Your task to perform on an android device: Open the calendar app, open the side menu, and click the "Day" option Image 0: 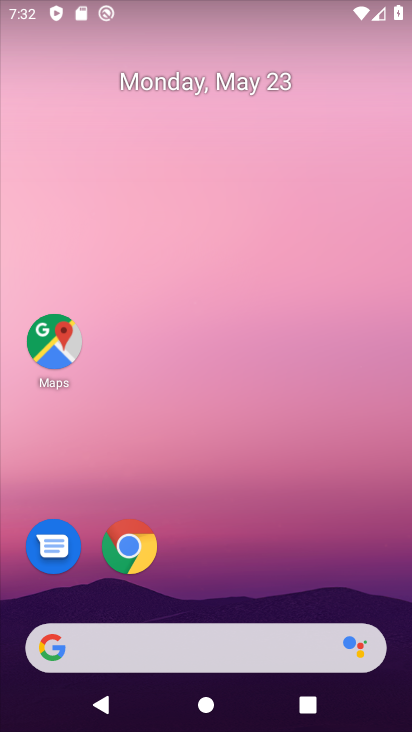
Step 0: drag from (392, 589) to (379, 215)
Your task to perform on an android device: Open the calendar app, open the side menu, and click the "Day" option Image 1: 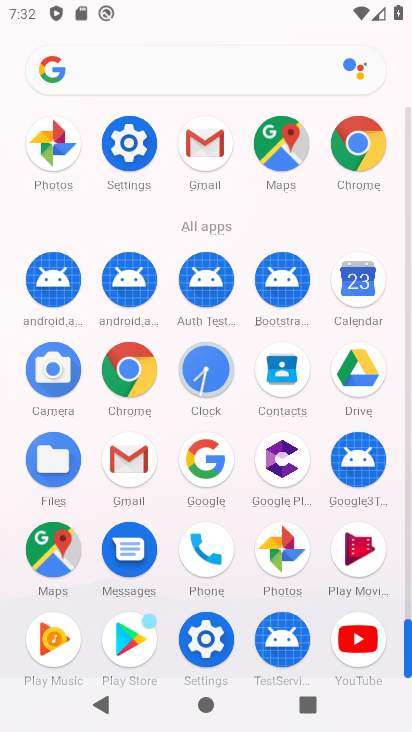
Step 1: click (360, 303)
Your task to perform on an android device: Open the calendar app, open the side menu, and click the "Day" option Image 2: 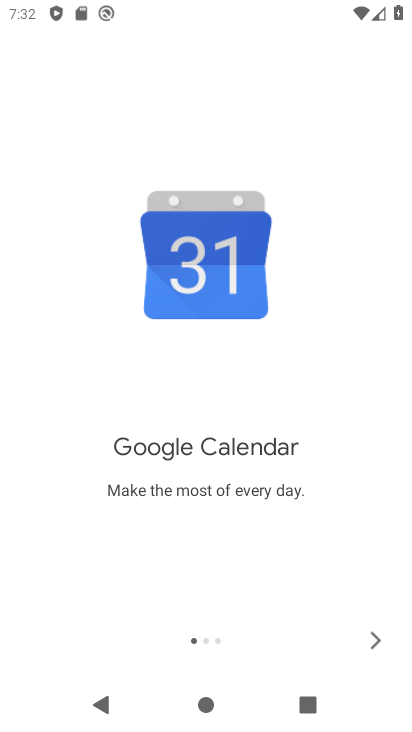
Step 2: click (379, 649)
Your task to perform on an android device: Open the calendar app, open the side menu, and click the "Day" option Image 3: 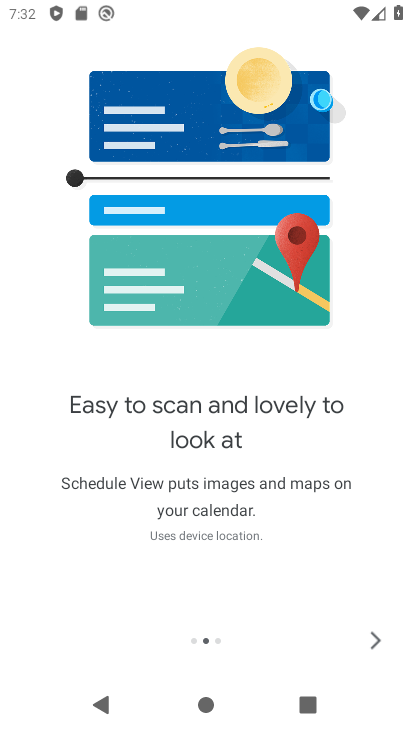
Step 3: click (379, 649)
Your task to perform on an android device: Open the calendar app, open the side menu, and click the "Day" option Image 4: 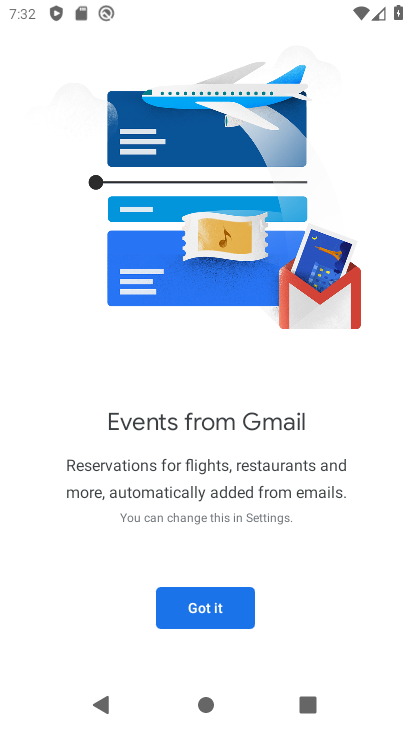
Step 4: click (207, 621)
Your task to perform on an android device: Open the calendar app, open the side menu, and click the "Day" option Image 5: 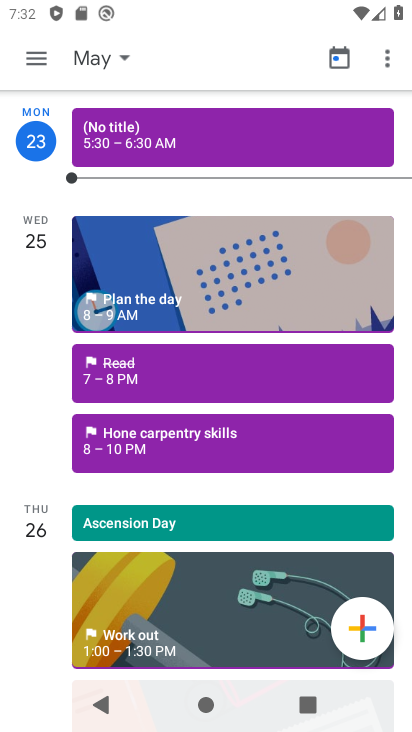
Step 5: click (38, 50)
Your task to perform on an android device: Open the calendar app, open the side menu, and click the "Day" option Image 6: 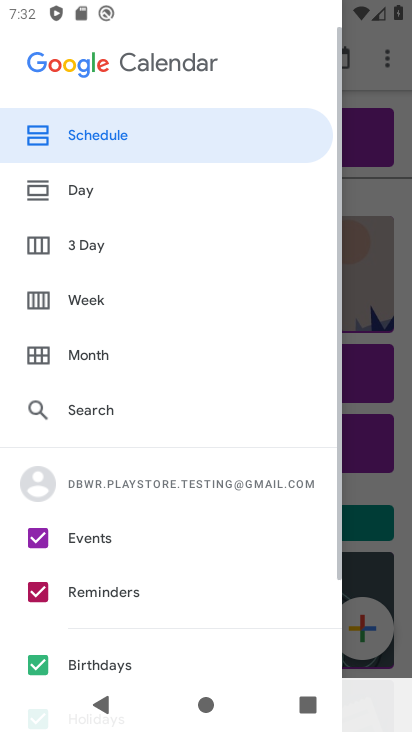
Step 6: click (75, 198)
Your task to perform on an android device: Open the calendar app, open the side menu, and click the "Day" option Image 7: 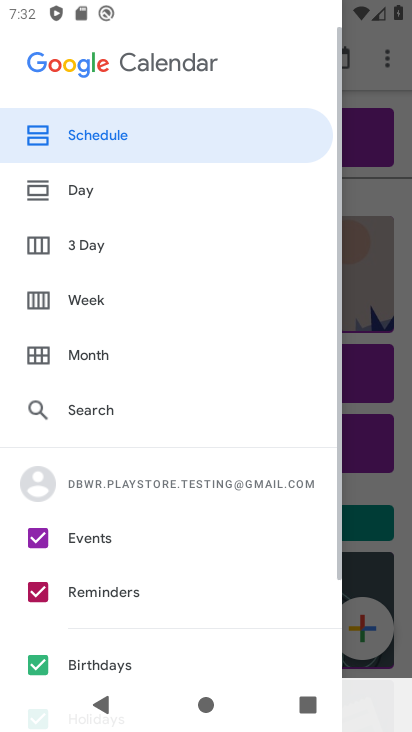
Step 7: click (86, 186)
Your task to perform on an android device: Open the calendar app, open the side menu, and click the "Day" option Image 8: 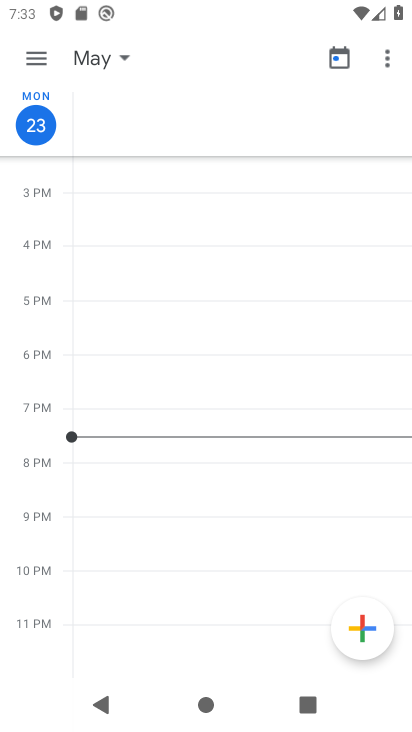
Step 8: task complete